Your task to perform on an android device: turn off location history Image 0: 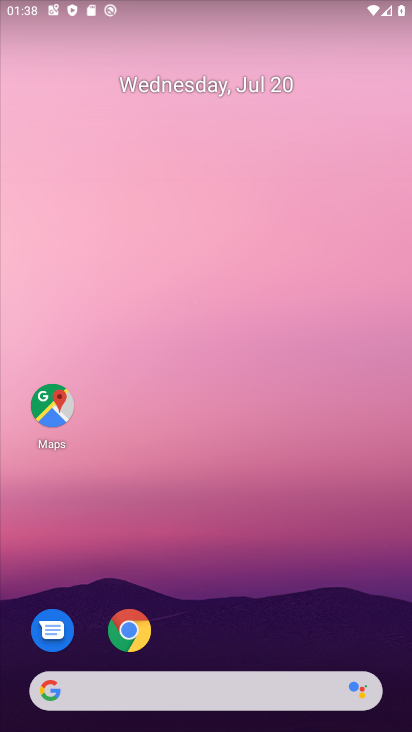
Step 0: drag from (313, 531) to (278, 54)
Your task to perform on an android device: turn off location history Image 1: 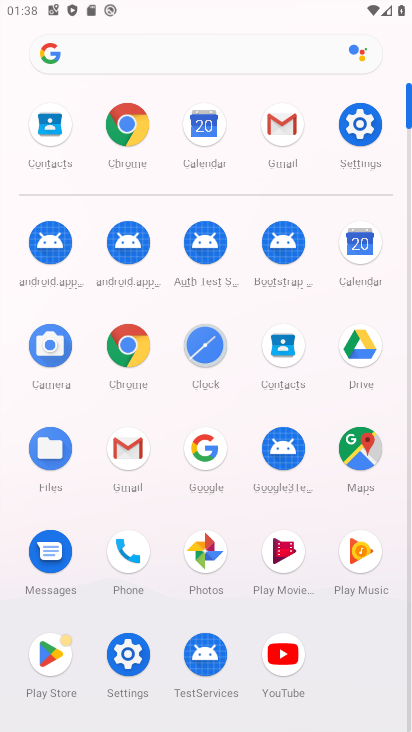
Step 1: click (359, 128)
Your task to perform on an android device: turn off location history Image 2: 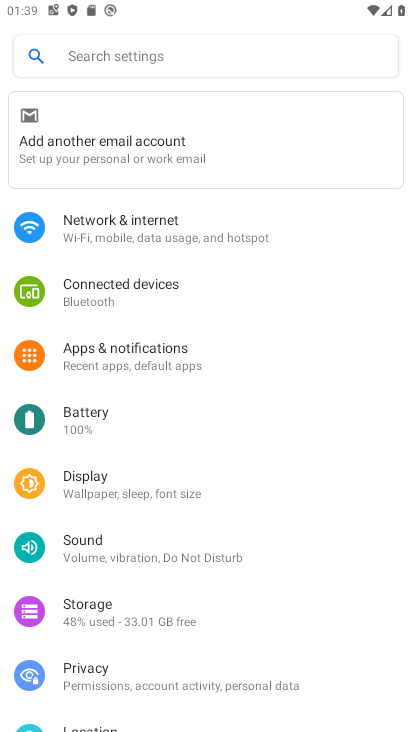
Step 2: drag from (144, 591) to (247, 124)
Your task to perform on an android device: turn off location history Image 3: 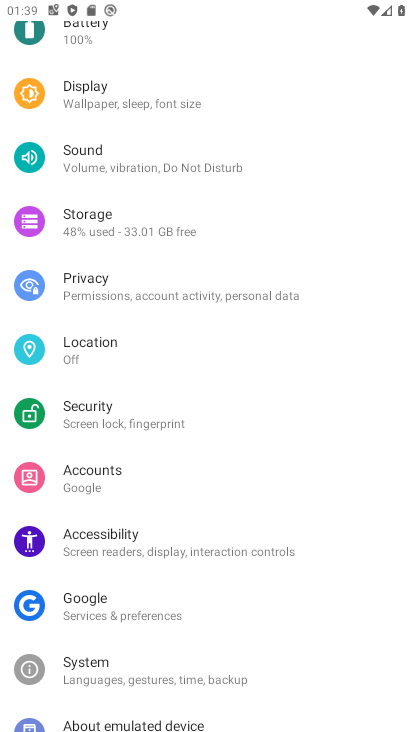
Step 3: drag from (175, 473) to (221, 251)
Your task to perform on an android device: turn off location history Image 4: 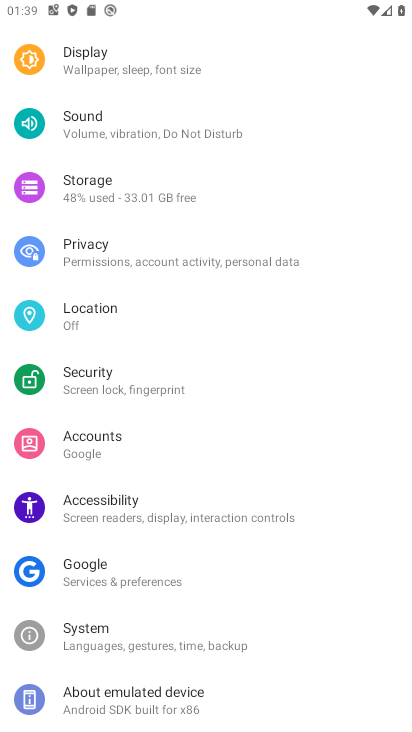
Step 4: click (77, 305)
Your task to perform on an android device: turn off location history Image 5: 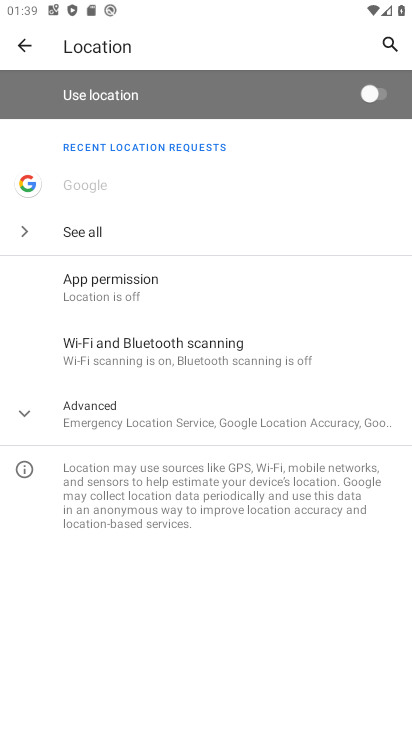
Step 5: click (172, 421)
Your task to perform on an android device: turn off location history Image 6: 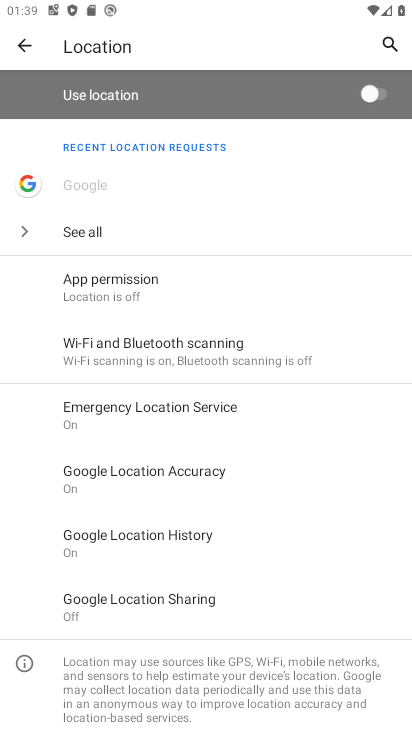
Step 6: click (191, 530)
Your task to perform on an android device: turn off location history Image 7: 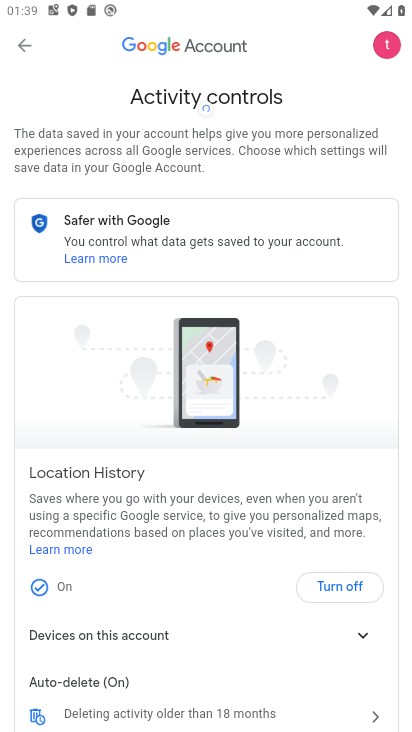
Step 7: click (341, 580)
Your task to perform on an android device: turn off location history Image 8: 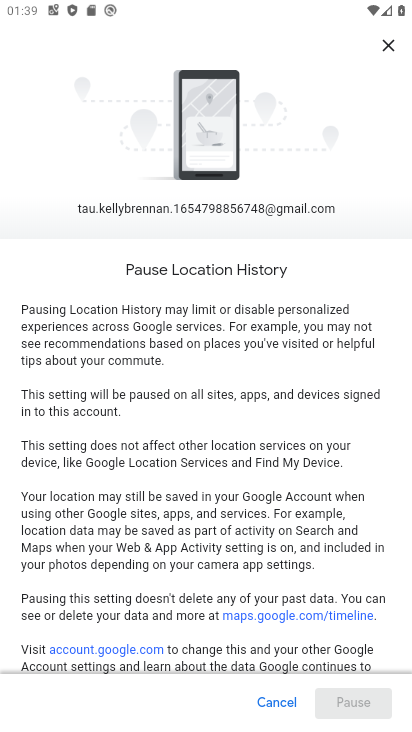
Step 8: drag from (259, 545) to (301, 62)
Your task to perform on an android device: turn off location history Image 9: 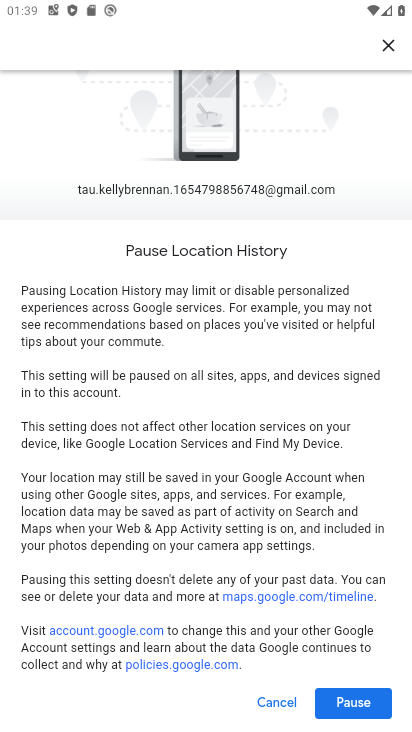
Step 9: click (364, 719)
Your task to perform on an android device: turn off location history Image 10: 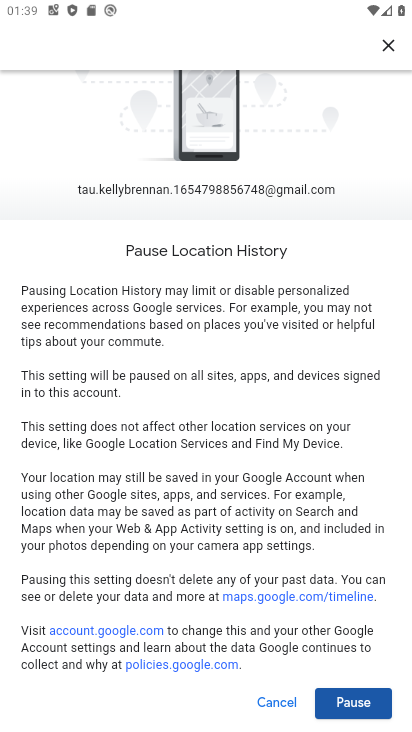
Step 10: click (365, 704)
Your task to perform on an android device: turn off location history Image 11: 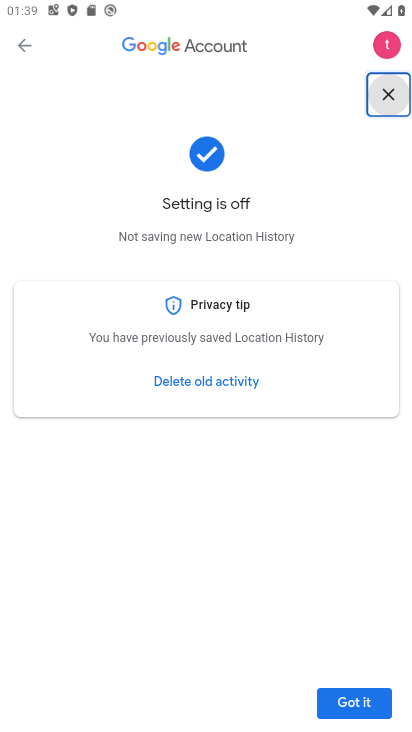
Step 11: task complete